Your task to perform on an android device: Open sound settings Image 0: 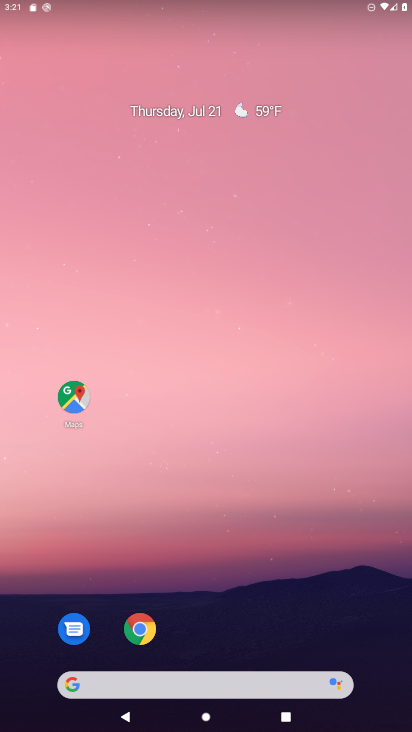
Step 0: drag from (231, 724) to (231, 83)
Your task to perform on an android device: Open sound settings Image 1: 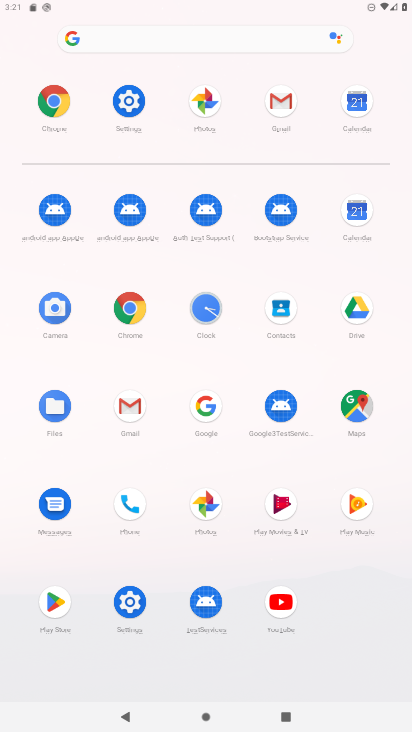
Step 1: click (128, 104)
Your task to perform on an android device: Open sound settings Image 2: 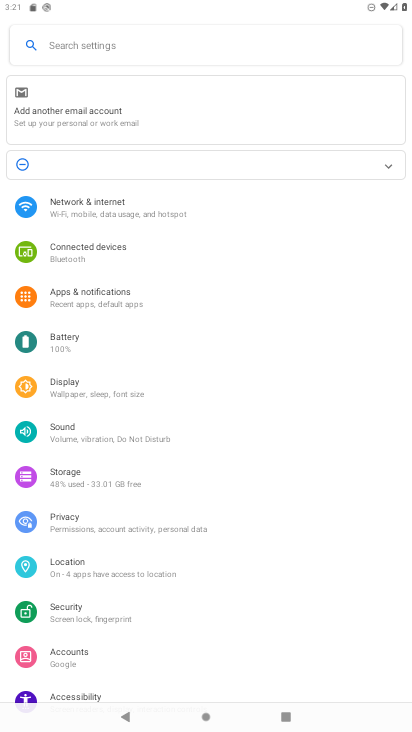
Step 2: click (67, 427)
Your task to perform on an android device: Open sound settings Image 3: 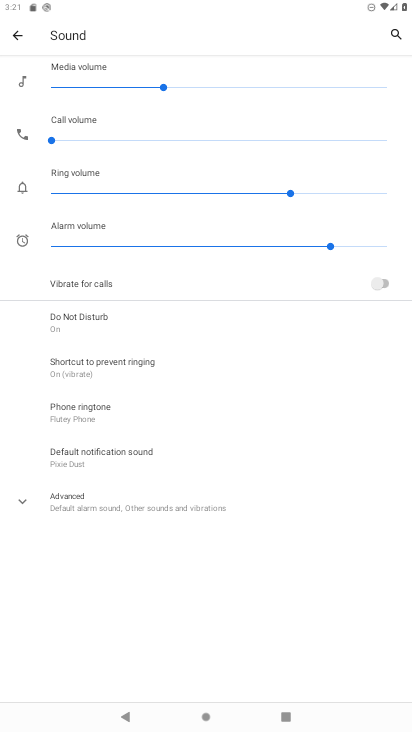
Step 3: task complete